Your task to perform on an android device: turn off improve location accuracy Image 0: 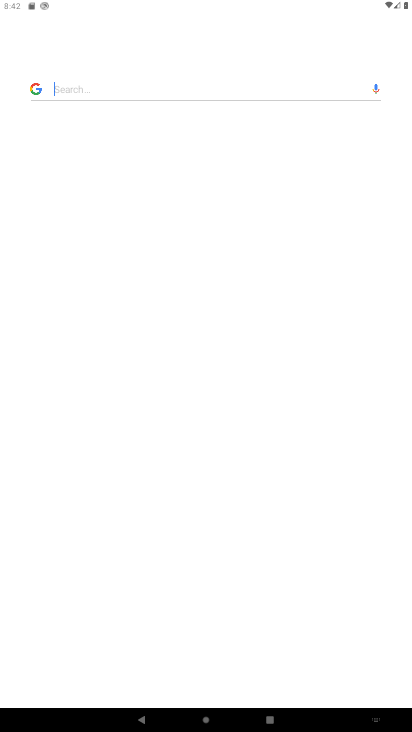
Step 0: press home button
Your task to perform on an android device: turn off improve location accuracy Image 1: 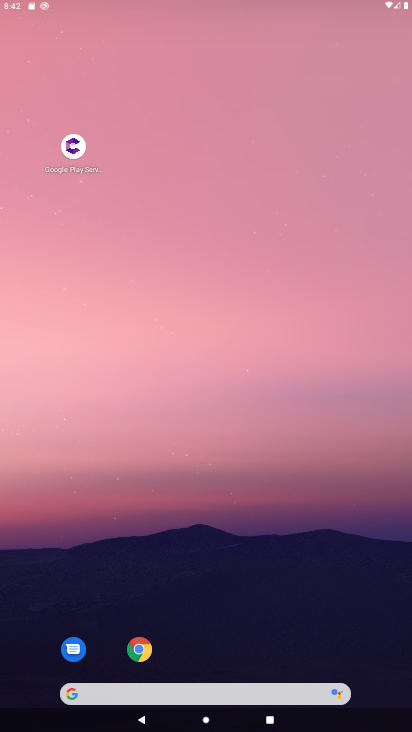
Step 1: drag from (207, 663) to (208, 93)
Your task to perform on an android device: turn off improve location accuracy Image 2: 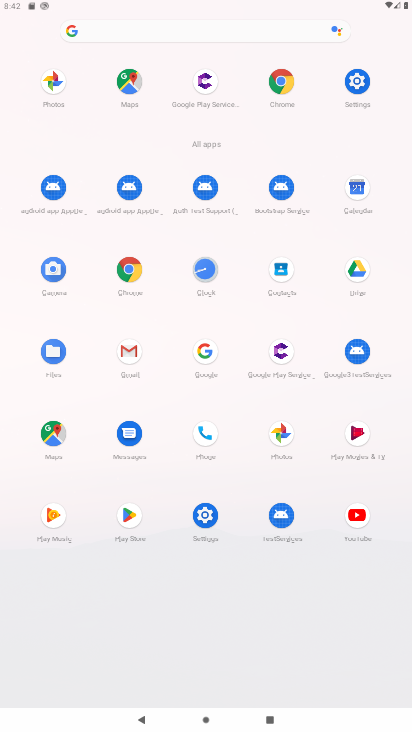
Step 2: click (358, 80)
Your task to perform on an android device: turn off improve location accuracy Image 3: 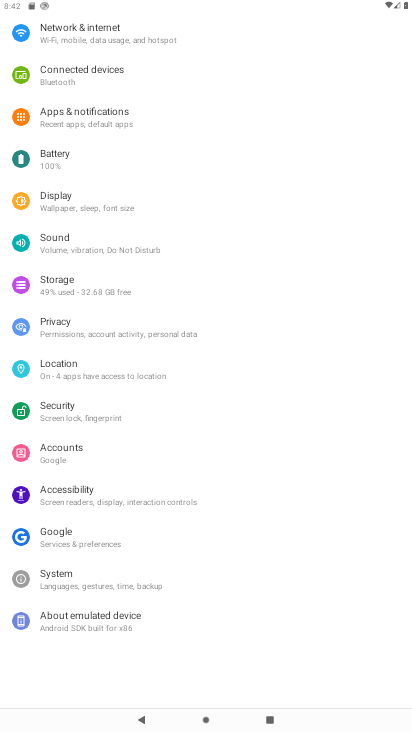
Step 3: click (29, 369)
Your task to perform on an android device: turn off improve location accuracy Image 4: 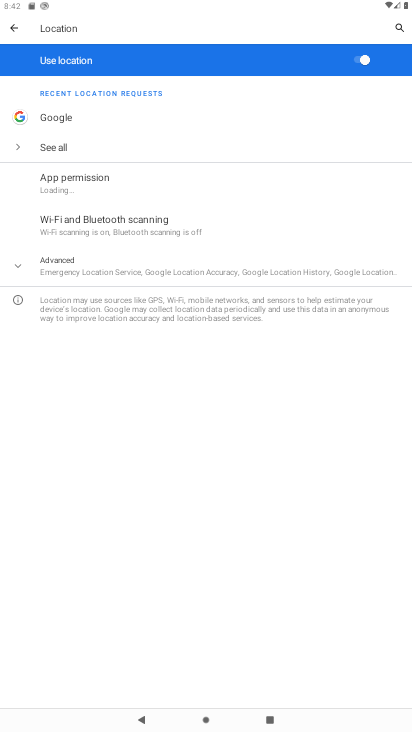
Step 4: click (46, 262)
Your task to perform on an android device: turn off improve location accuracy Image 5: 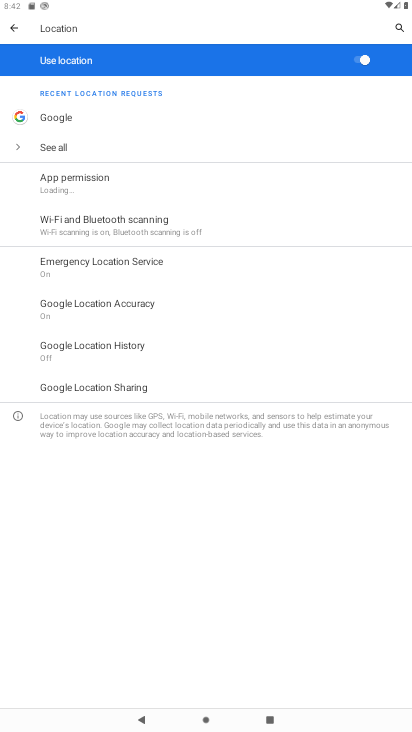
Step 5: click (103, 307)
Your task to perform on an android device: turn off improve location accuracy Image 6: 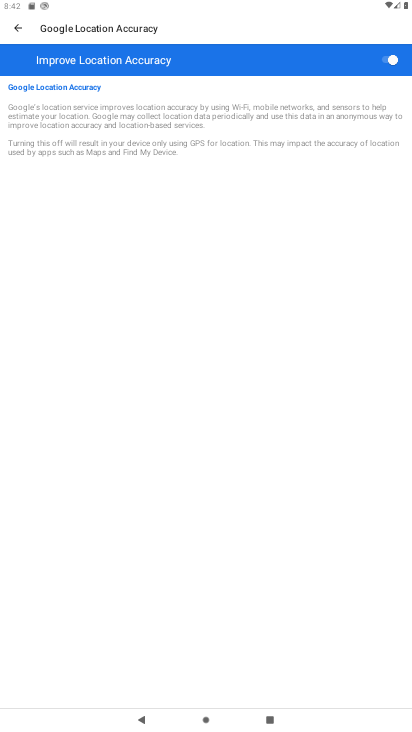
Step 6: click (393, 52)
Your task to perform on an android device: turn off improve location accuracy Image 7: 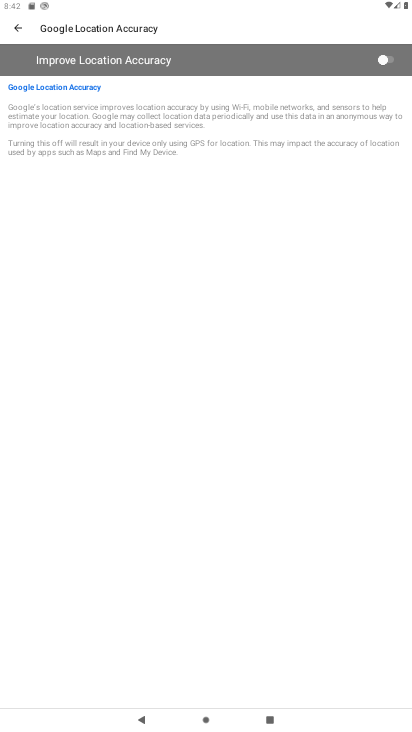
Step 7: task complete